Your task to perform on an android device: Is it going to rain this weekend? Image 0: 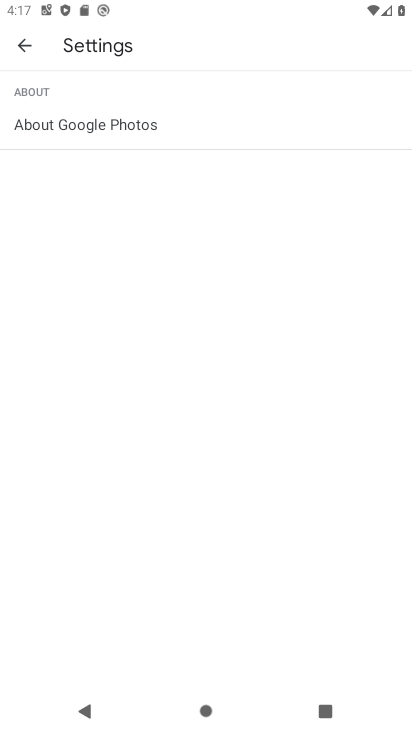
Step 0: press back button
Your task to perform on an android device: Is it going to rain this weekend? Image 1: 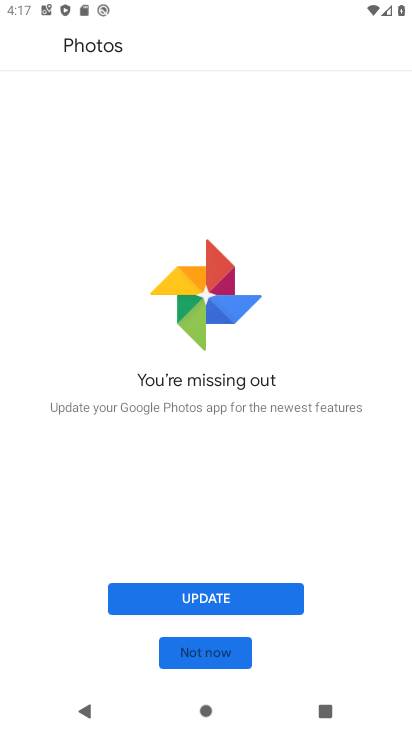
Step 1: press home button
Your task to perform on an android device: Is it going to rain this weekend? Image 2: 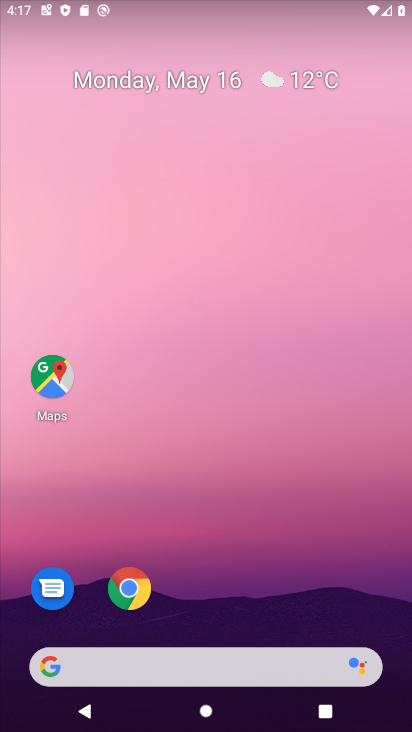
Step 2: click (275, 78)
Your task to perform on an android device: Is it going to rain this weekend? Image 3: 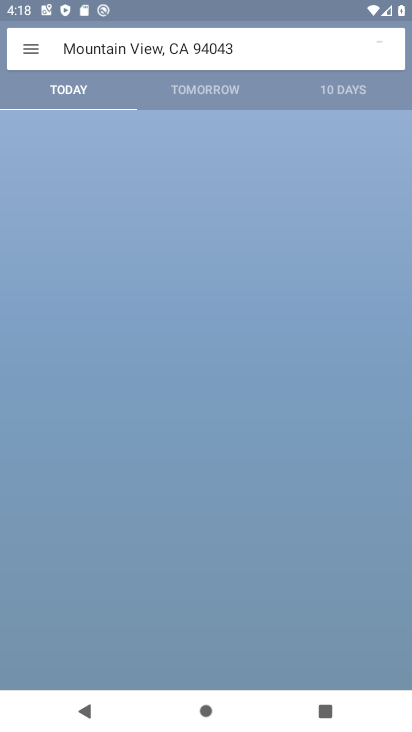
Step 3: click (376, 92)
Your task to perform on an android device: Is it going to rain this weekend? Image 4: 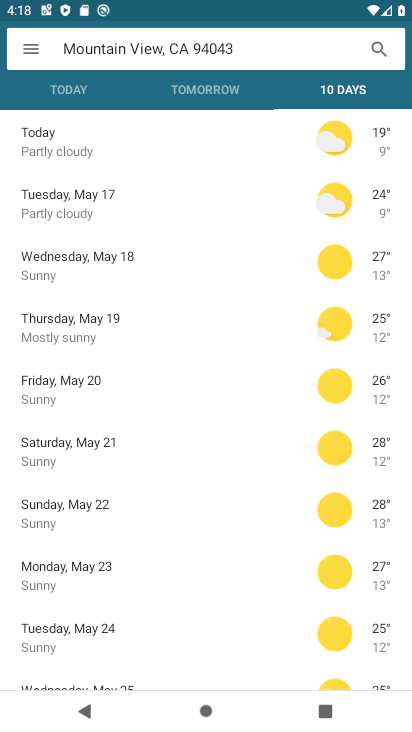
Step 4: task complete